Your task to perform on an android device: add a contact Image 0: 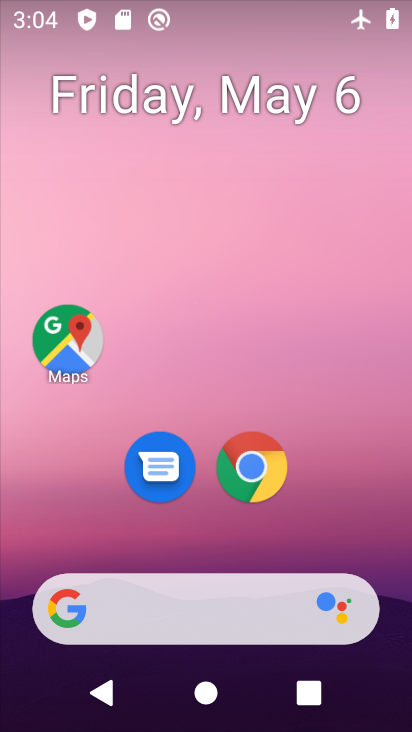
Step 0: drag from (406, 514) to (408, 152)
Your task to perform on an android device: add a contact Image 1: 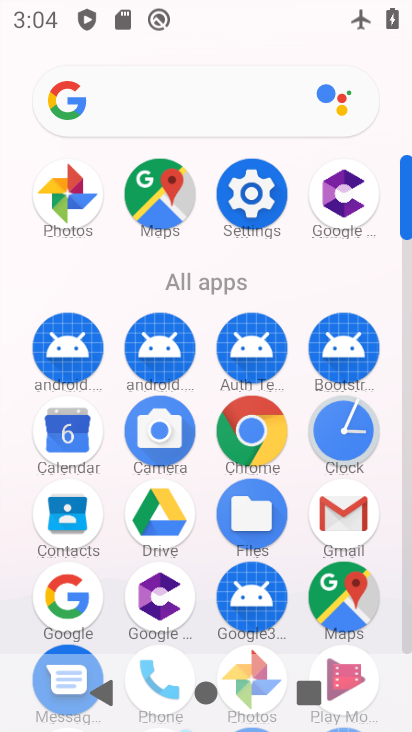
Step 1: click (66, 526)
Your task to perform on an android device: add a contact Image 2: 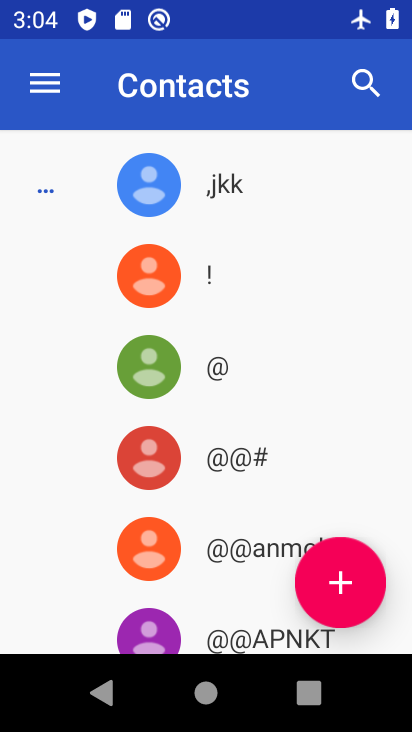
Step 2: click (318, 581)
Your task to perform on an android device: add a contact Image 3: 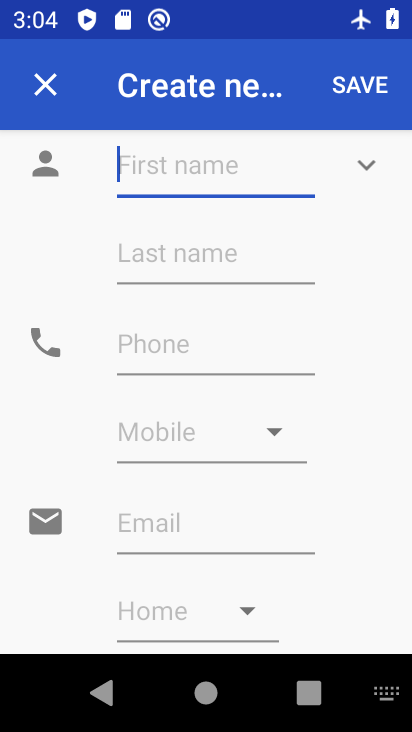
Step 3: type "hbjdshjbd"
Your task to perform on an android device: add a contact Image 4: 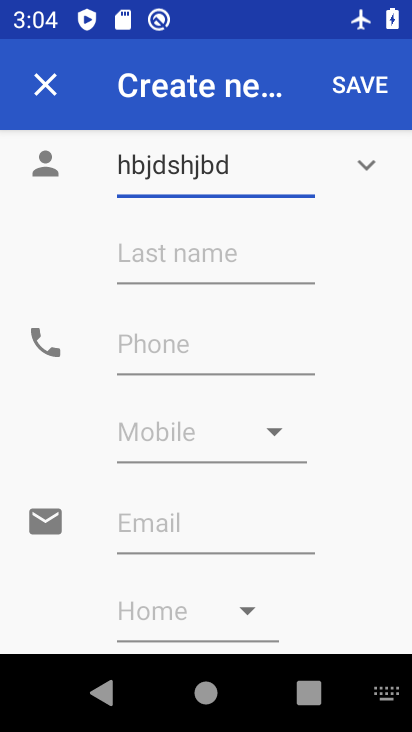
Step 4: click (195, 265)
Your task to perform on an android device: add a contact Image 5: 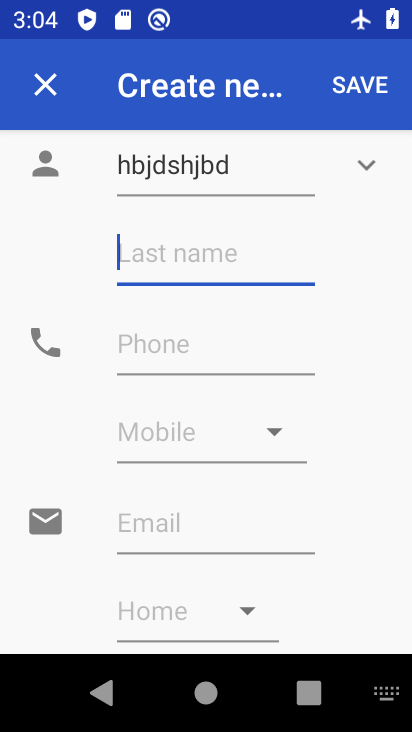
Step 5: type "iuhbhjsbvh"
Your task to perform on an android device: add a contact Image 6: 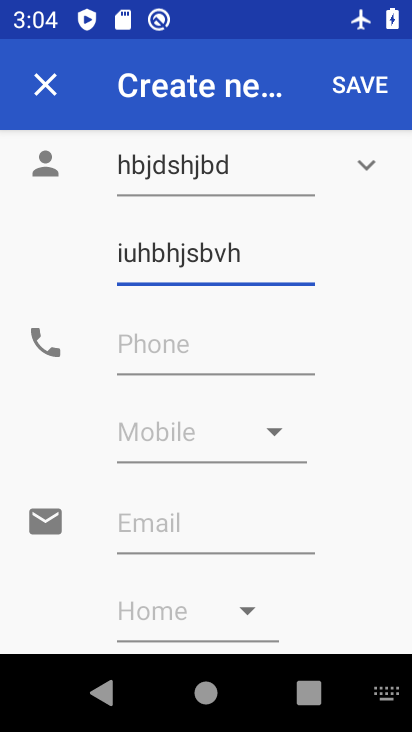
Step 6: click (152, 338)
Your task to perform on an android device: add a contact Image 7: 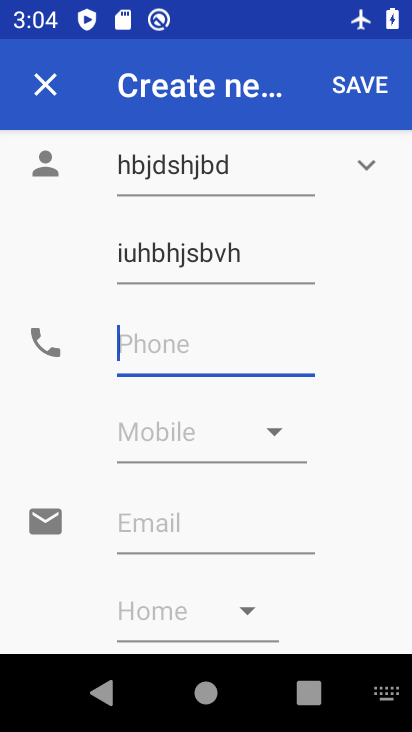
Step 7: type "84588743739384"
Your task to perform on an android device: add a contact Image 8: 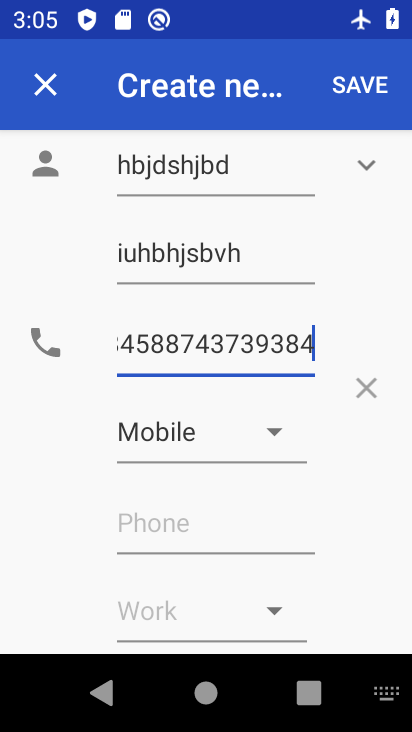
Step 8: click (378, 87)
Your task to perform on an android device: add a contact Image 9: 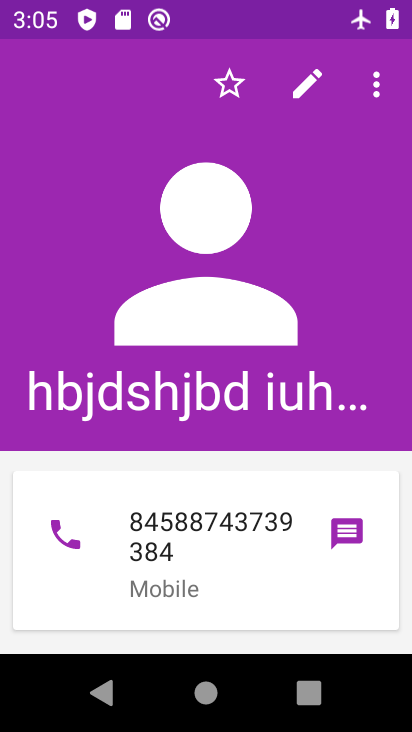
Step 9: task complete